Your task to perform on an android device: Go to Wikipedia Image 0: 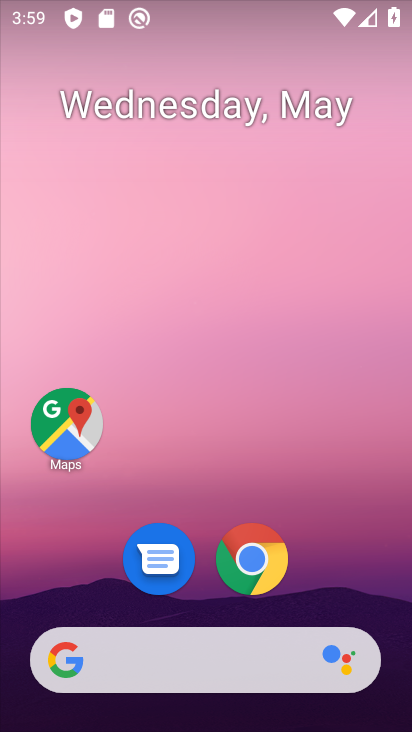
Step 0: click (264, 565)
Your task to perform on an android device: Go to Wikipedia Image 1: 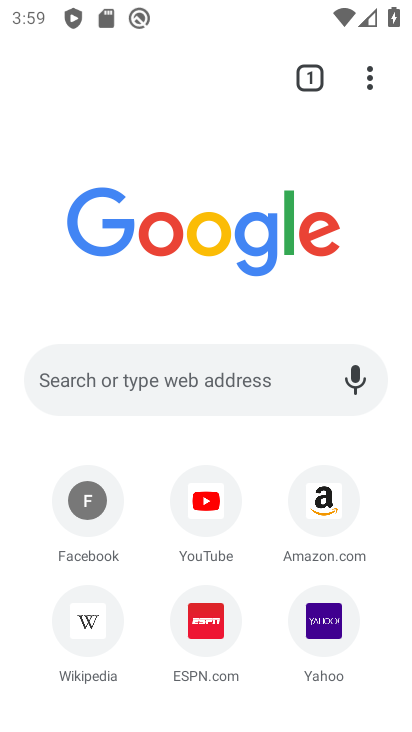
Step 1: click (86, 623)
Your task to perform on an android device: Go to Wikipedia Image 2: 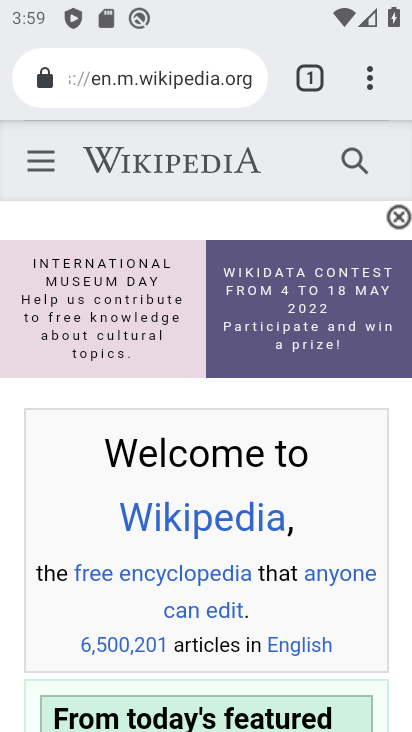
Step 2: task complete